Your task to perform on an android device: Open calendar and show me the fourth week of next month Image 0: 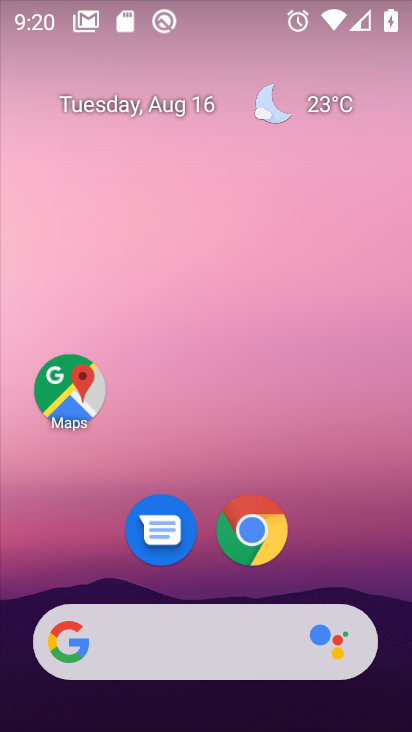
Step 0: drag from (343, 511) to (331, 0)
Your task to perform on an android device: Open calendar and show me the fourth week of next month Image 1: 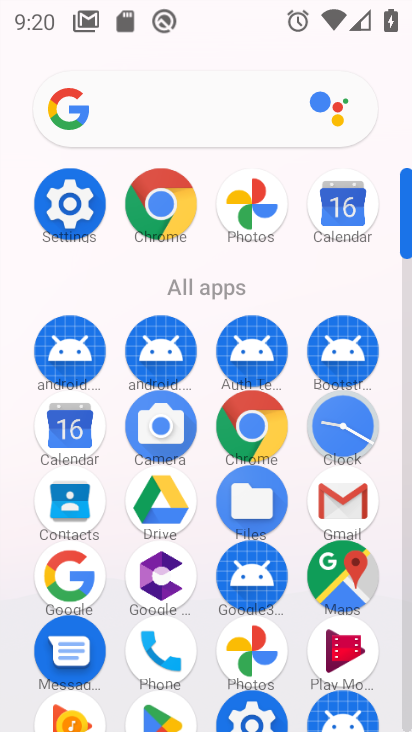
Step 1: click (87, 424)
Your task to perform on an android device: Open calendar and show me the fourth week of next month Image 2: 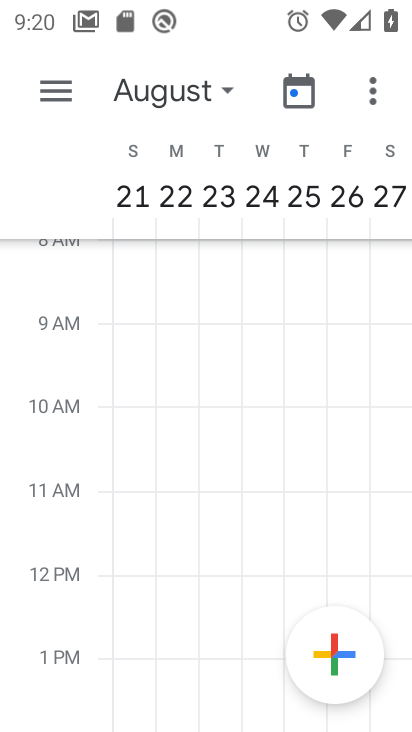
Step 2: click (170, 84)
Your task to perform on an android device: Open calendar and show me the fourth week of next month Image 3: 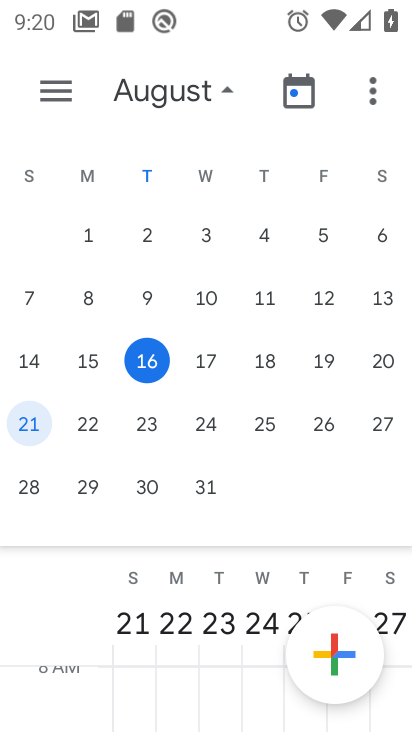
Step 3: drag from (405, 390) to (37, 387)
Your task to perform on an android device: Open calendar and show me the fourth week of next month Image 4: 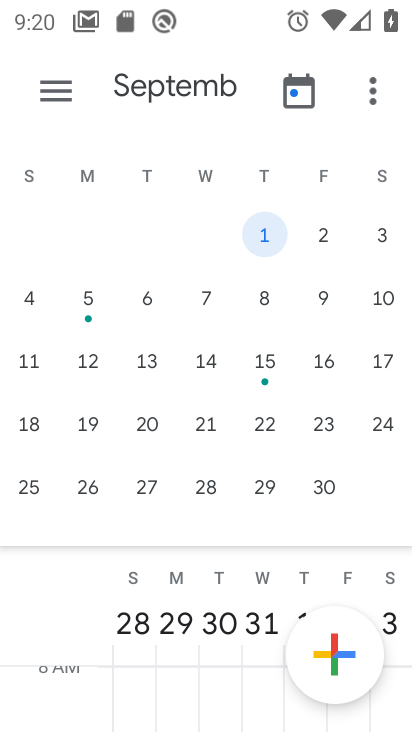
Step 4: click (33, 487)
Your task to perform on an android device: Open calendar and show me the fourth week of next month Image 5: 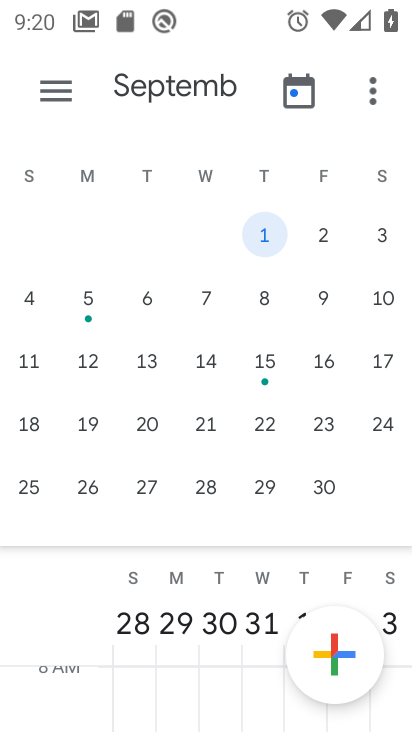
Step 5: click (34, 490)
Your task to perform on an android device: Open calendar and show me the fourth week of next month Image 6: 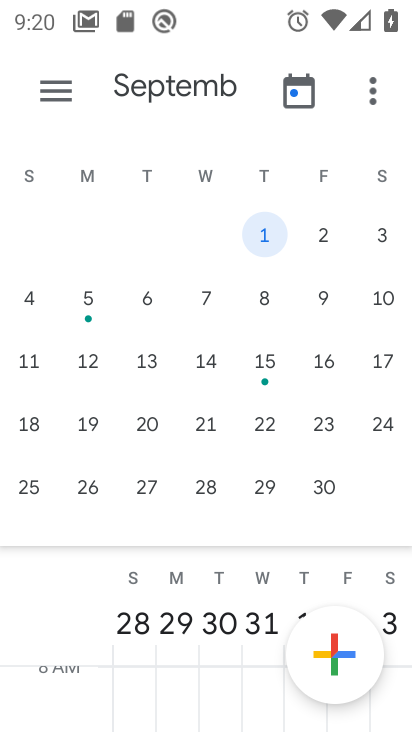
Step 6: click (46, 489)
Your task to perform on an android device: Open calendar and show me the fourth week of next month Image 7: 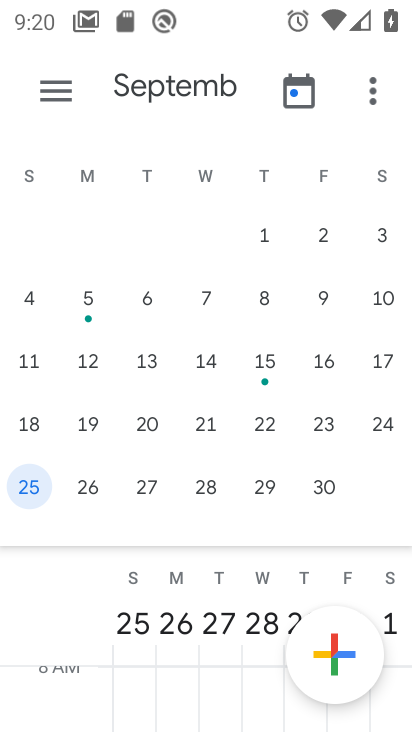
Step 7: task complete